Your task to perform on an android device: delete browsing data in the chrome app Image 0: 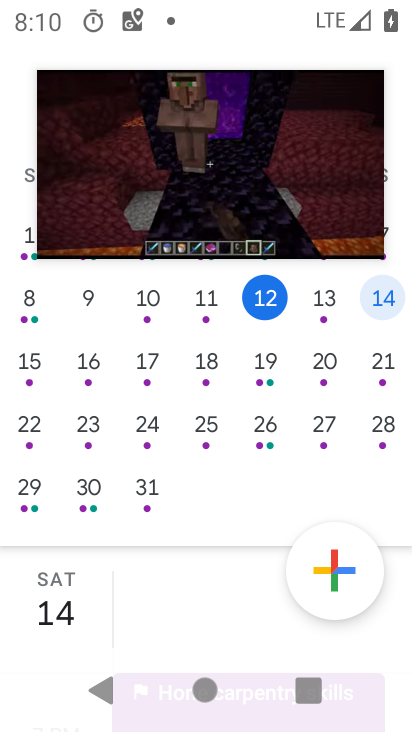
Step 0: click (347, 108)
Your task to perform on an android device: delete browsing data in the chrome app Image 1: 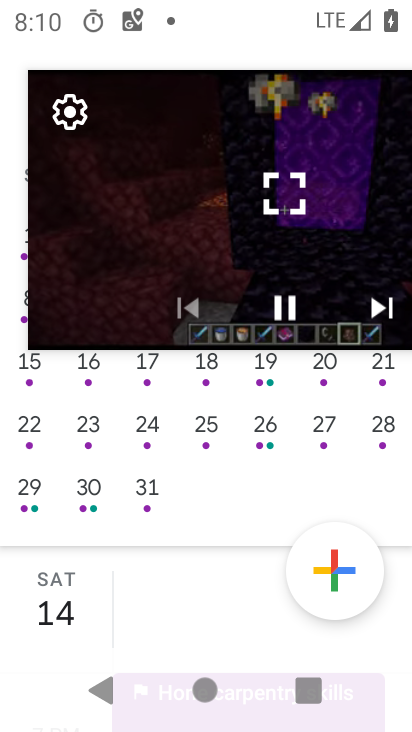
Step 1: drag from (376, 121) to (238, 717)
Your task to perform on an android device: delete browsing data in the chrome app Image 2: 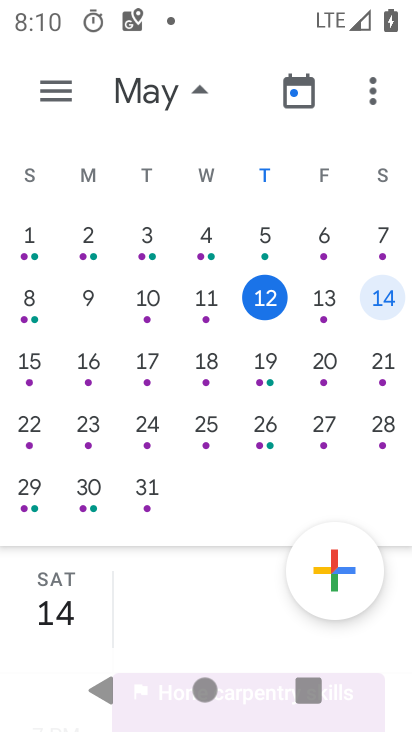
Step 2: press home button
Your task to perform on an android device: delete browsing data in the chrome app Image 3: 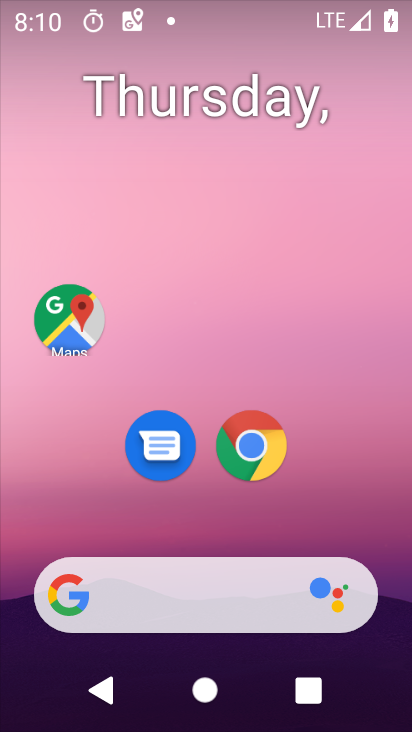
Step 3: click (253, 437)
Your task to perform on an android device: delete browsing data in the chrome app Image 4: 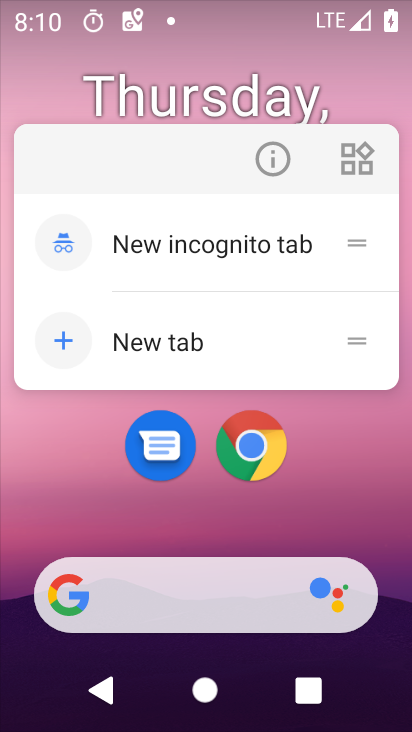
Step 4: click (272, 160)
Your task to perform on an android device: delete browsing data in the chrome app Image 5: 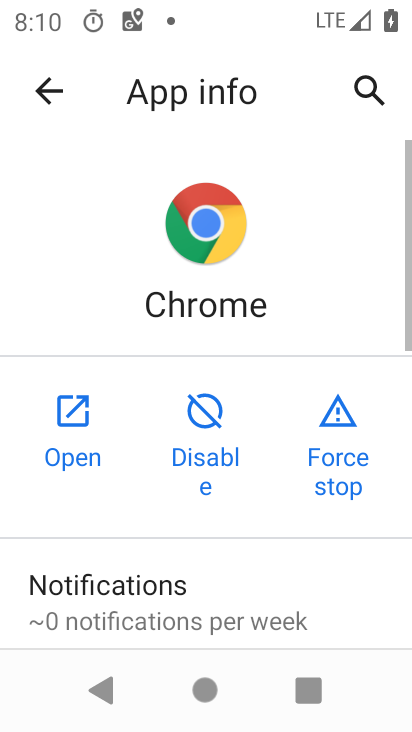
Step 5: click (76, 377)
Your task to perform on an android device: delete browsing data in the chrome app Image 6: 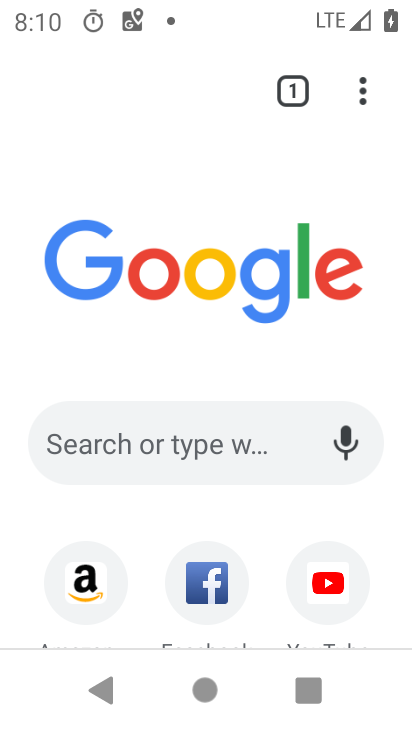
Step 6: drag from (282, 553) to (270, 347)
Your task to perform on an android device: delete browsing data in the chrome app Image 7: 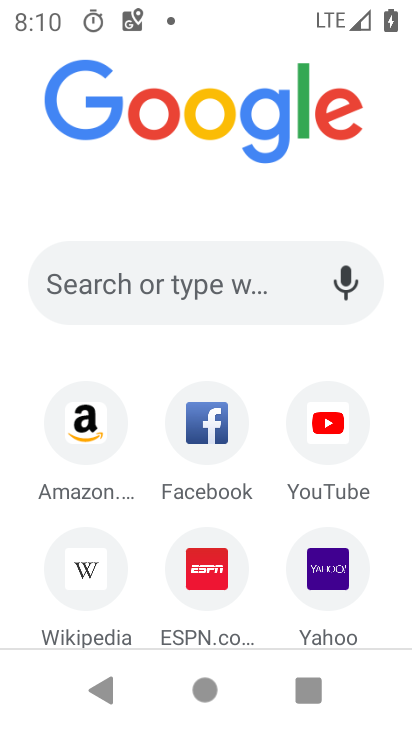
Step 7: drag from (274, 331) to (315, 605)
Your task to perform on an android device: delete browsing data in the chrome app Image 8: 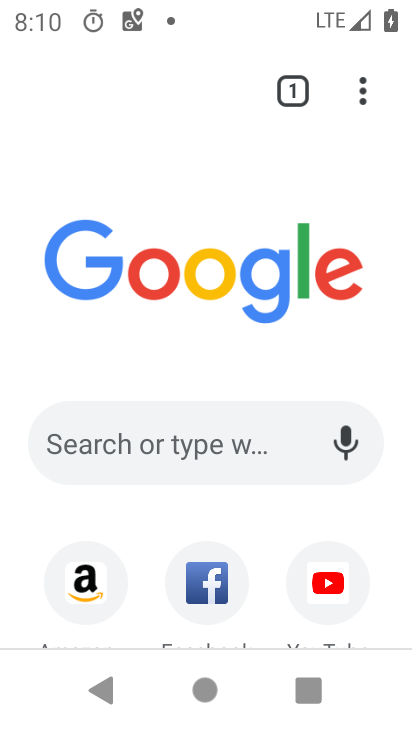
Step 8: drag from (359, 94) to (164, 336)
Your task to perform on an android device: delete browsing data in the chrome app Image 9: 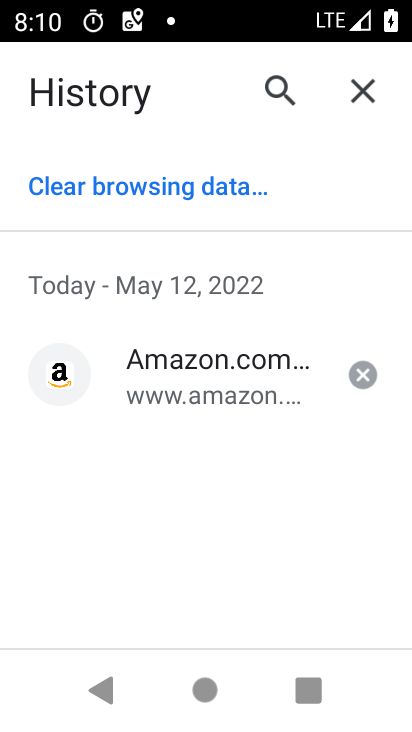
Step 9: click (88, 182)
Your task to perform on an android device: delete browsing data in the chrome app Image 10: 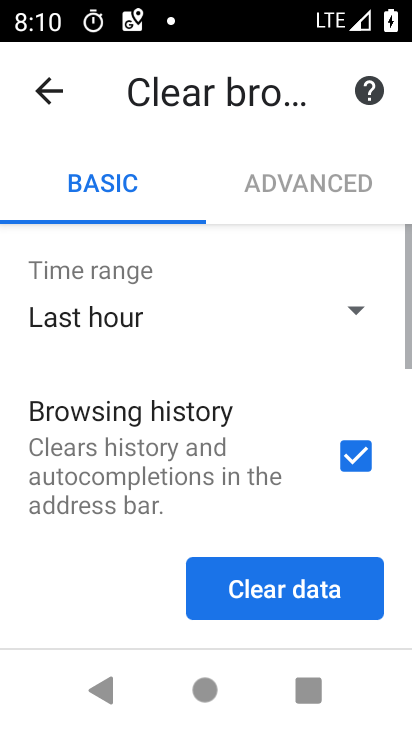
Step 10: click (278, 591)
Your task to perform on an android device: delete browsing data in the chrome app Image 11: 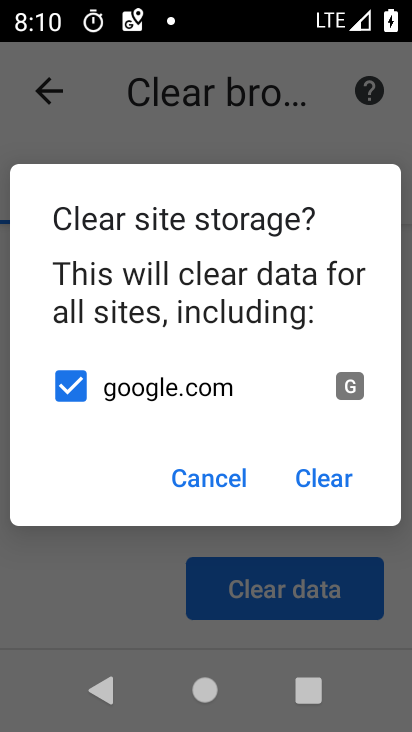
Step 11: click (313, 474)
Your task to perform on an android device: delete browsing data in the chrome app Image 12: 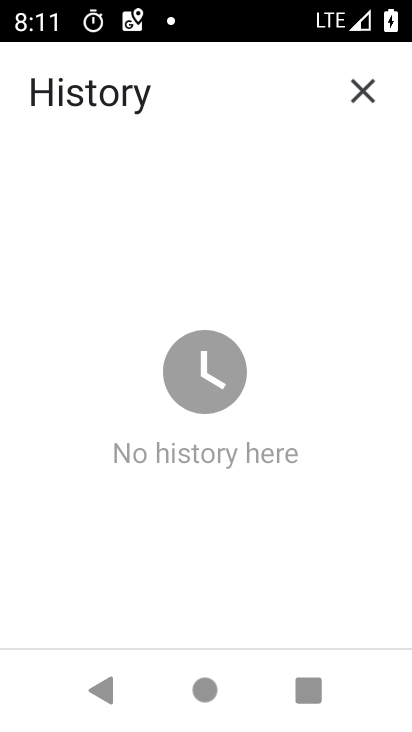
Step 12: task complete